Your task to perform on an android device: set an alarm Image 0: 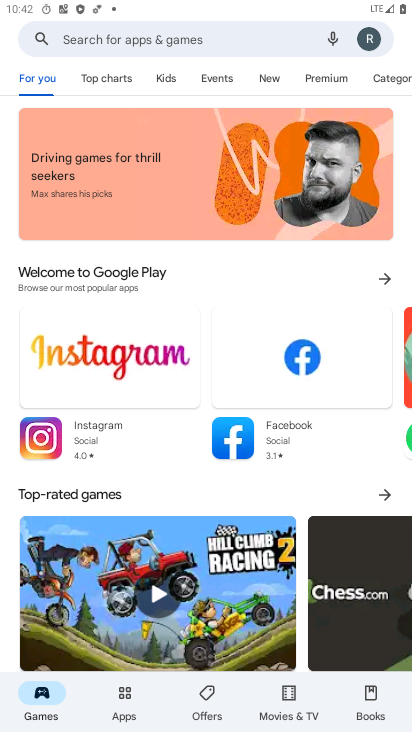
Step 0: press home button
Your task to perform on an android device: set an alarm Image 1: 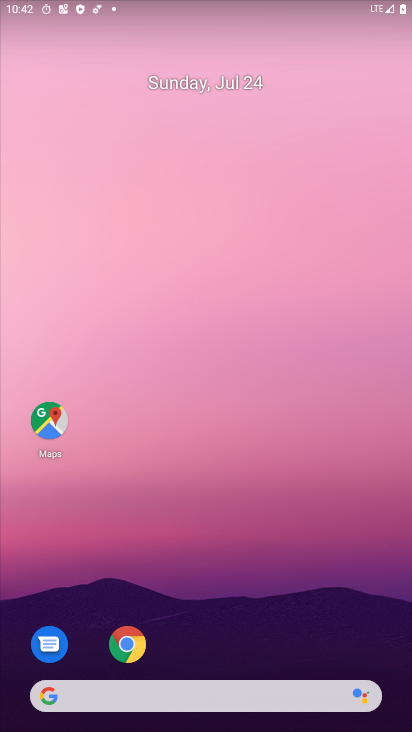
Step 1: drag from (208, 688) to (234, 80)
Your task to perform on an android device: set an alarm Image 2: 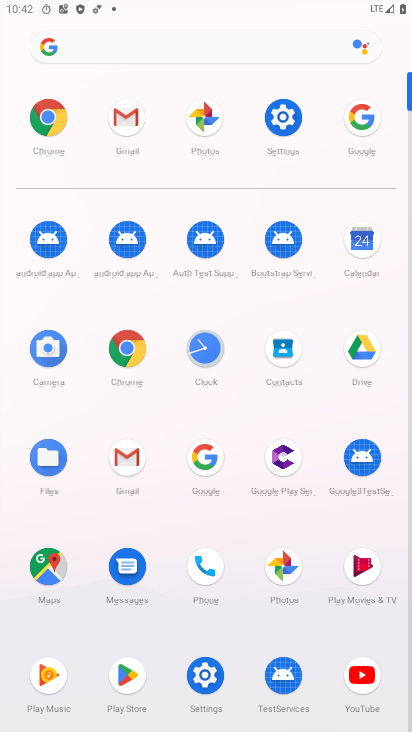
Step 2: click (203, 355)
Your task to perform on an android device: set an alarm Image 3: 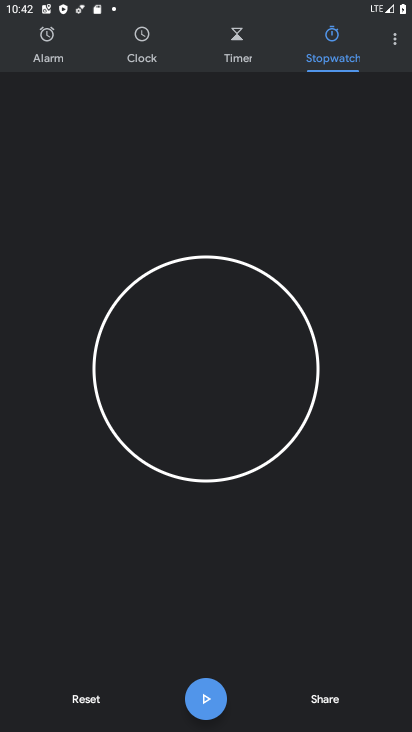
Step 3: click (51, 48)
Your task to perform on an android device: set an alarm Image 4: 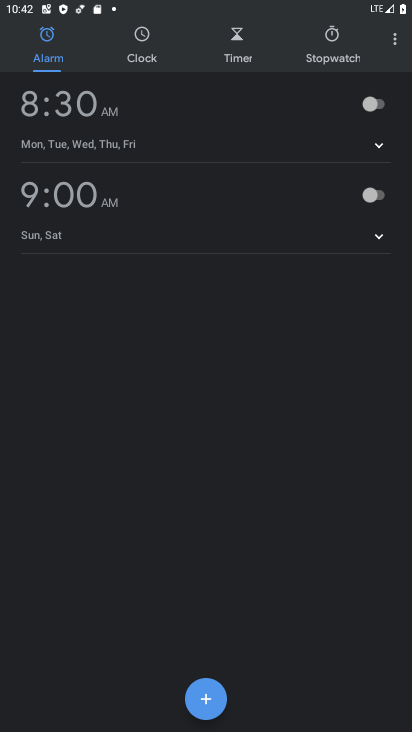
Step 4: click (208, 710)
Your task to perform on an android device: set an alarm Image 5: 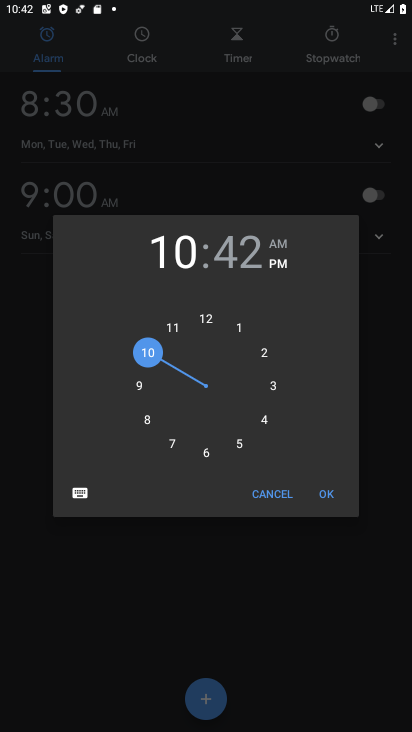
Step 5: click (205, 326)
Your task to perform on an android device: set an alarm Image 6: 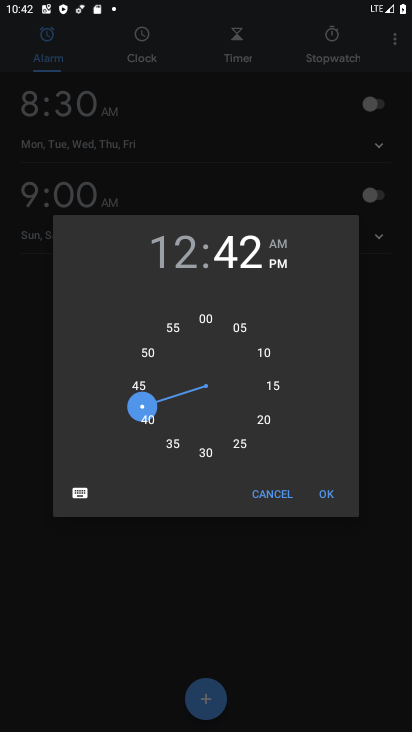
Step 6: click (205, 320)
Your task to perform on an android device: set an alarm Image 7: 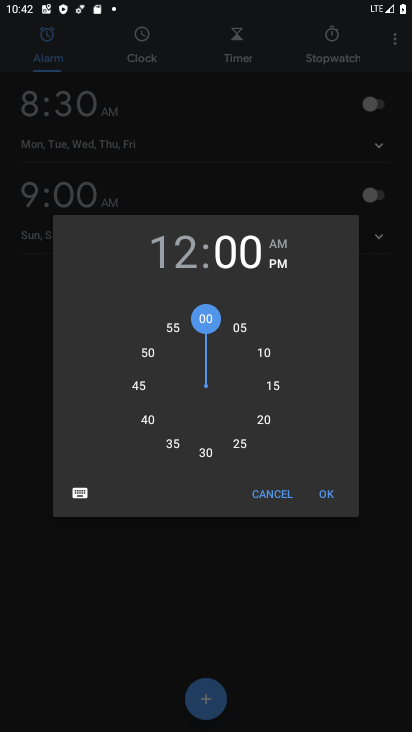
Step 7: click (336, 498)
Your task to perform on an android device: set an alarm Image 8: 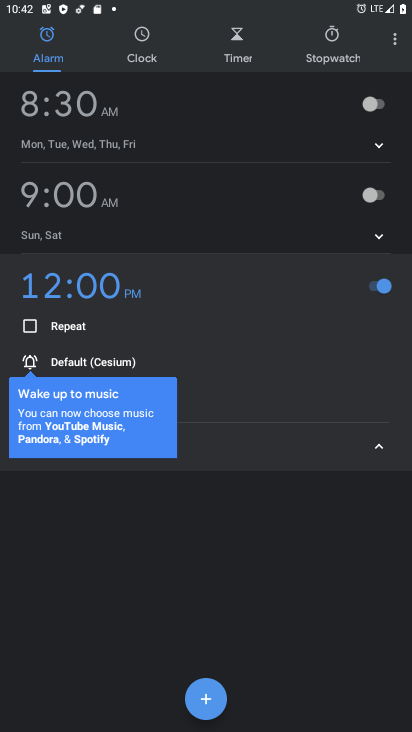
Step 8: task complete